Your task to perform on an android device: delete a single message in the gmail app Image 0: 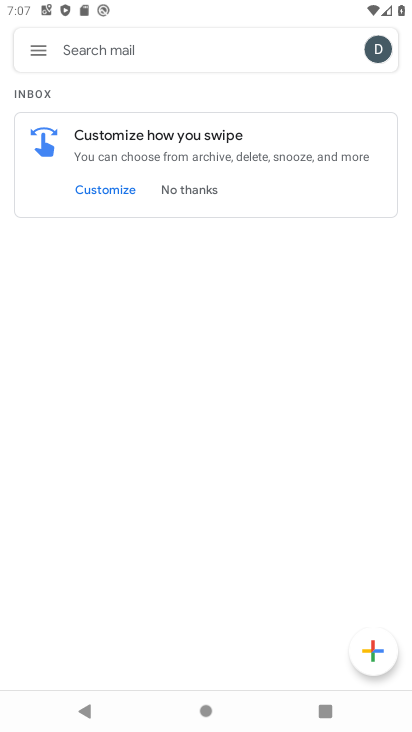
Step 0: press home button
Your task to perform on an android device: delete a single message in the gmail app Image 1: 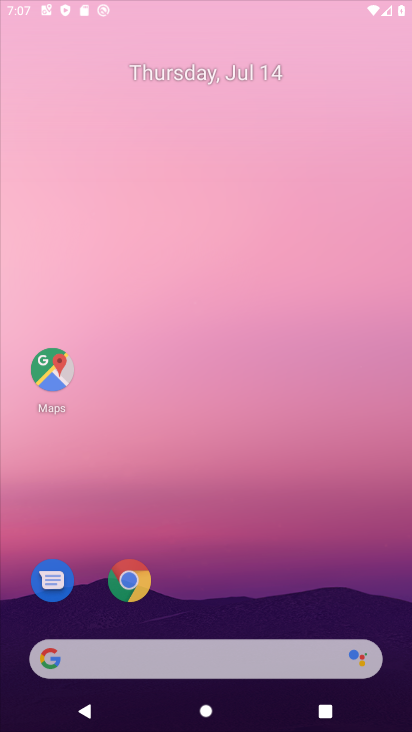
Step 1: drag from (324, 664) to (249, 10)
Your task to perform on an android device: delete a single message in the gmail app Image 2: 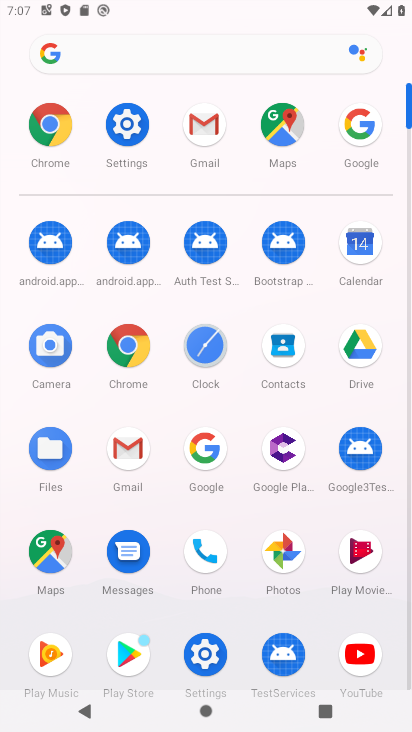
Step 2: click (111, 469)
Your task to perform on an android device: delete a single message in the gmail app Image 3: 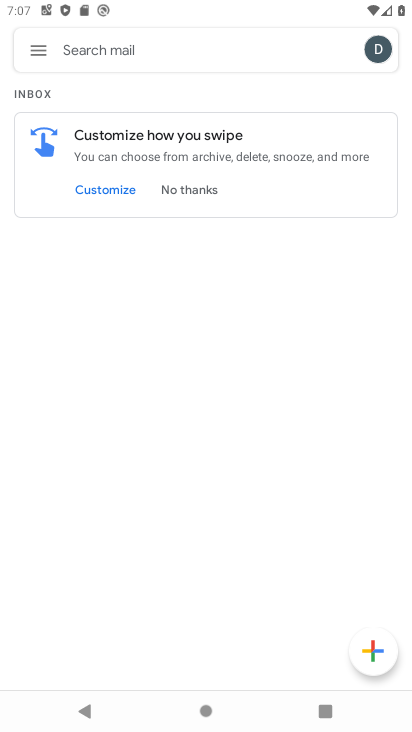
Step 3: click (31, 47)
Your task to perform on an android device: delete a single message in the gmail app Image 4: 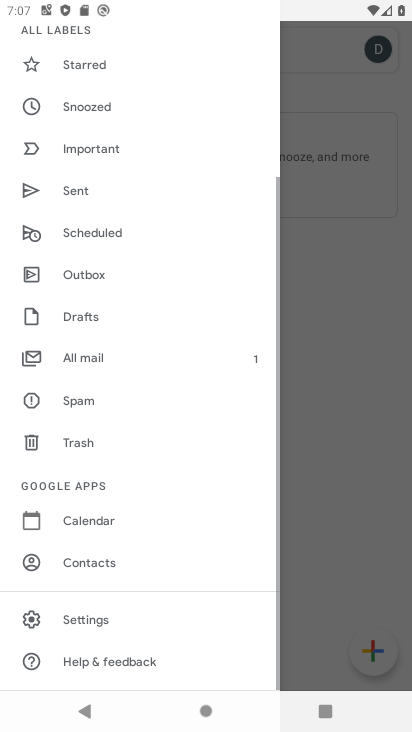
Step 4: drag from (41, 51) to (97, 615)
Your task to perform on an android device: delete a single message in the gmail app Image 5: 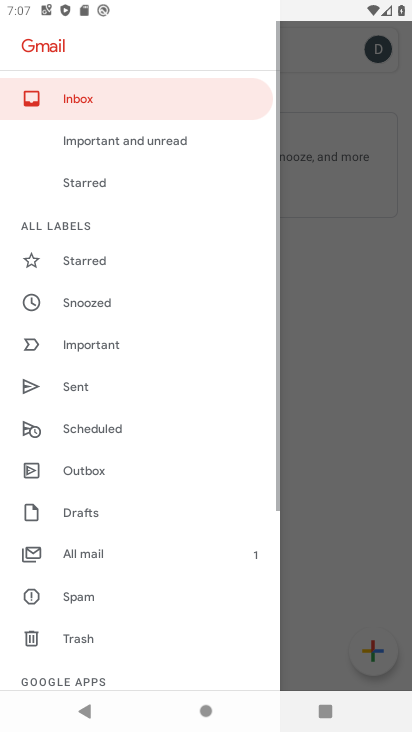
Step 5: click (127, 102)
Your task to perform on an android device: delete a single message in the gmail app Image 6: 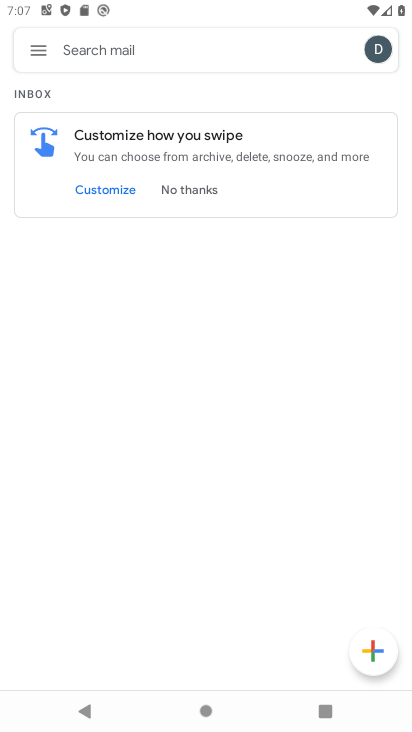
Step 6: task complete